Your task to perform on an android device: Search for seafood restaurants on Google Maps Image 0: 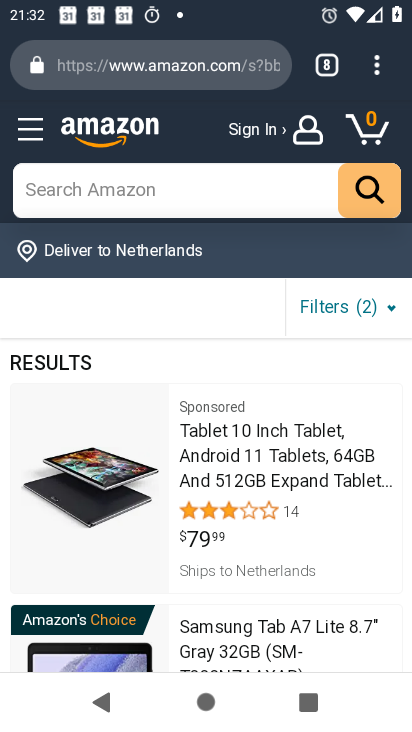
Step 0: press home button
Your task to perform on an android device: Search for seafood restaurants on Google Maps Image 1: 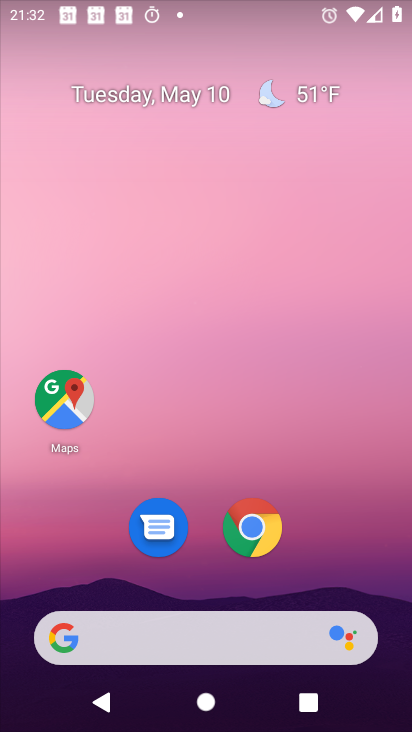
Step 1: click (56, 390)
Your task to perform on an android device: Search for seafood restaurants on Google Maps Image 2: 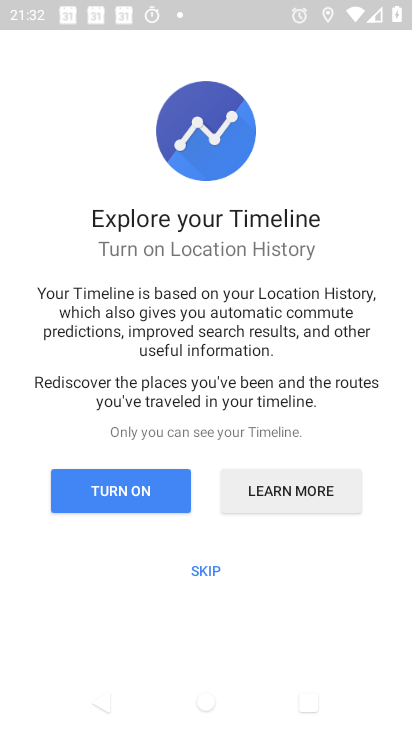
Step 2: click (208, 568)
Your task to perform on an android device: Search for seafood restaurants on Google Maps Image 3: 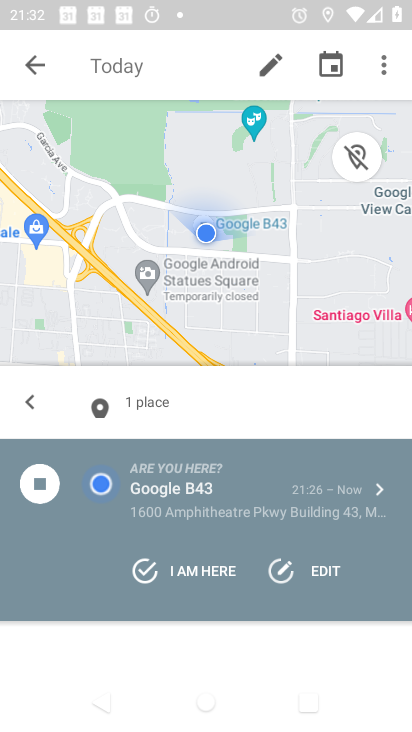
Step 3: click (32, 66)
Your task to perform on an android device: Search for seafood restaurants on Google Maps Image 4: 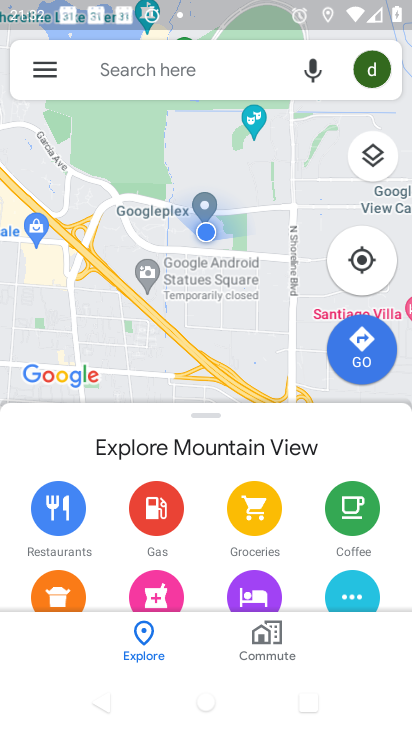
Step 4: click (144, 67)
Your task to perform on an android device: Search for seafood restaurants on Google Maps Image 5: 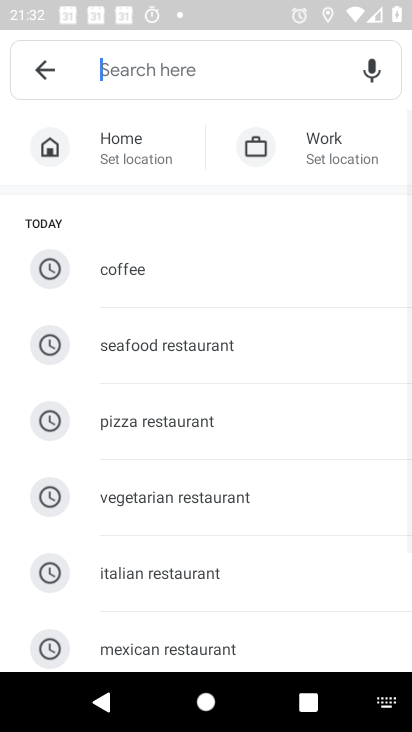
Step 5: click (131, 343)
Your task to perform on an android device: Search for seafood restaurants on Google Maps Image 6: 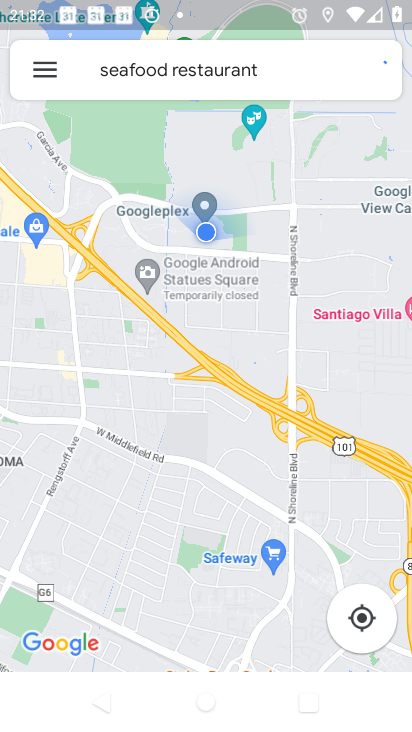
Step 6: task complete